Your task to perform on an android device: Open ESPN.com Image 0: 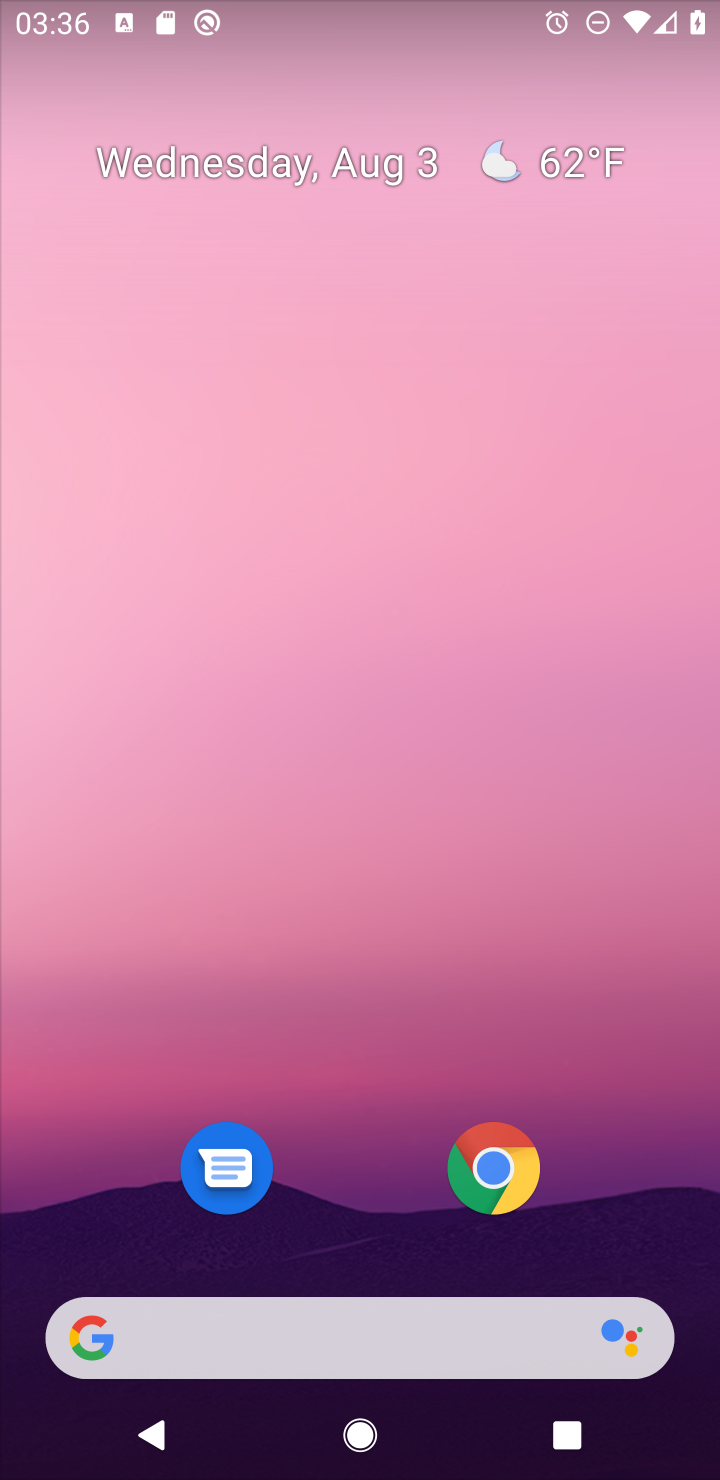
Step 0: click (500, 1170)
Your task to perform on an android device: Open ESPN.com Image 1: 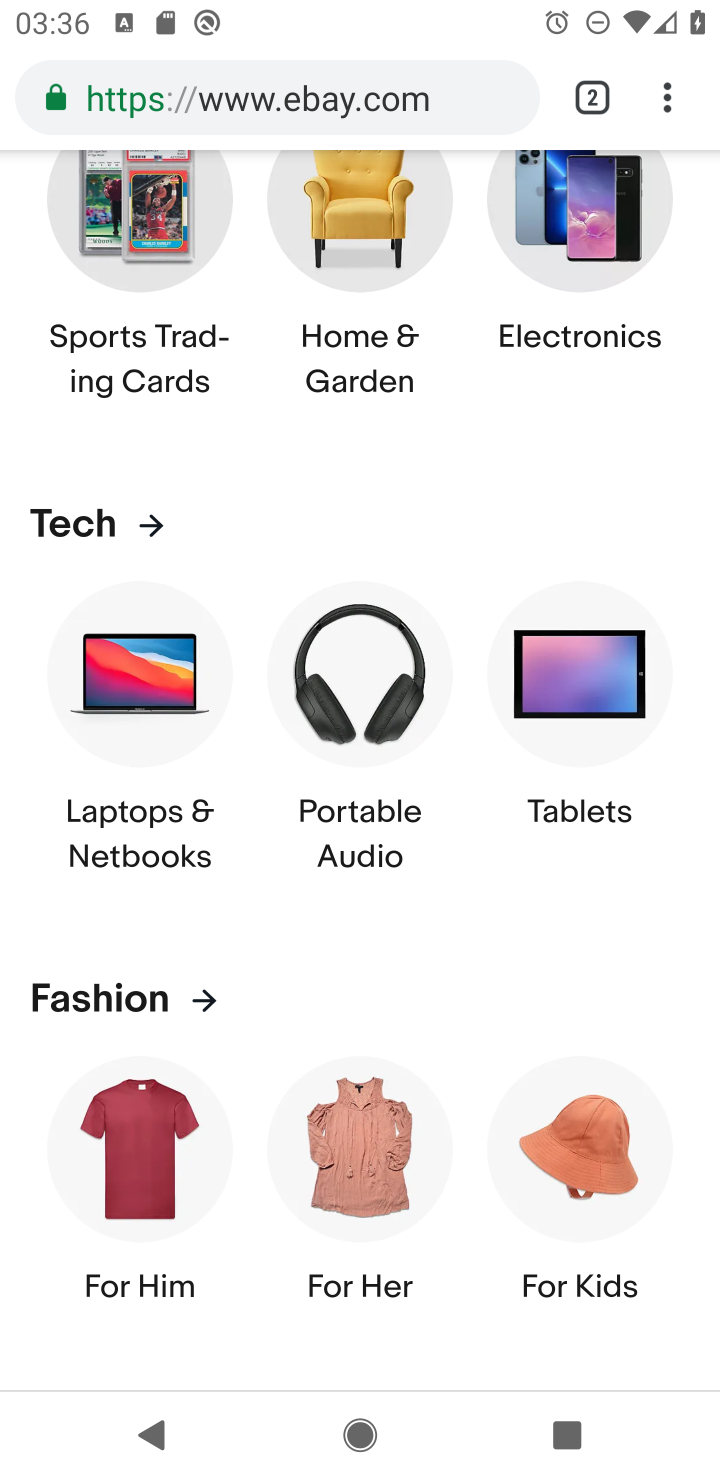
Step 1: click (471, 97)
Your task to perform on an android device: Open ESPN.com Image 2: 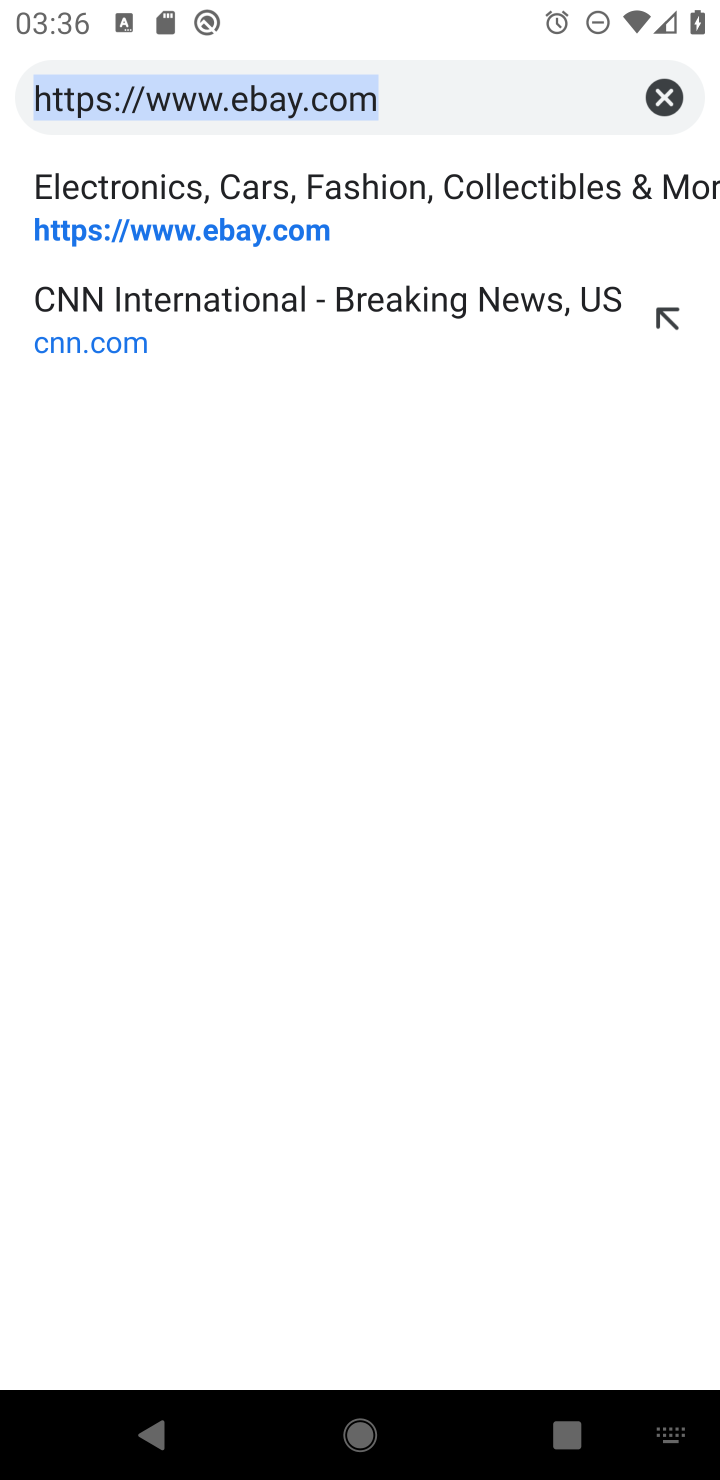
Step 2: click (650, 93)
Your task to perform on an android device: Open ESPN.com Image 3: 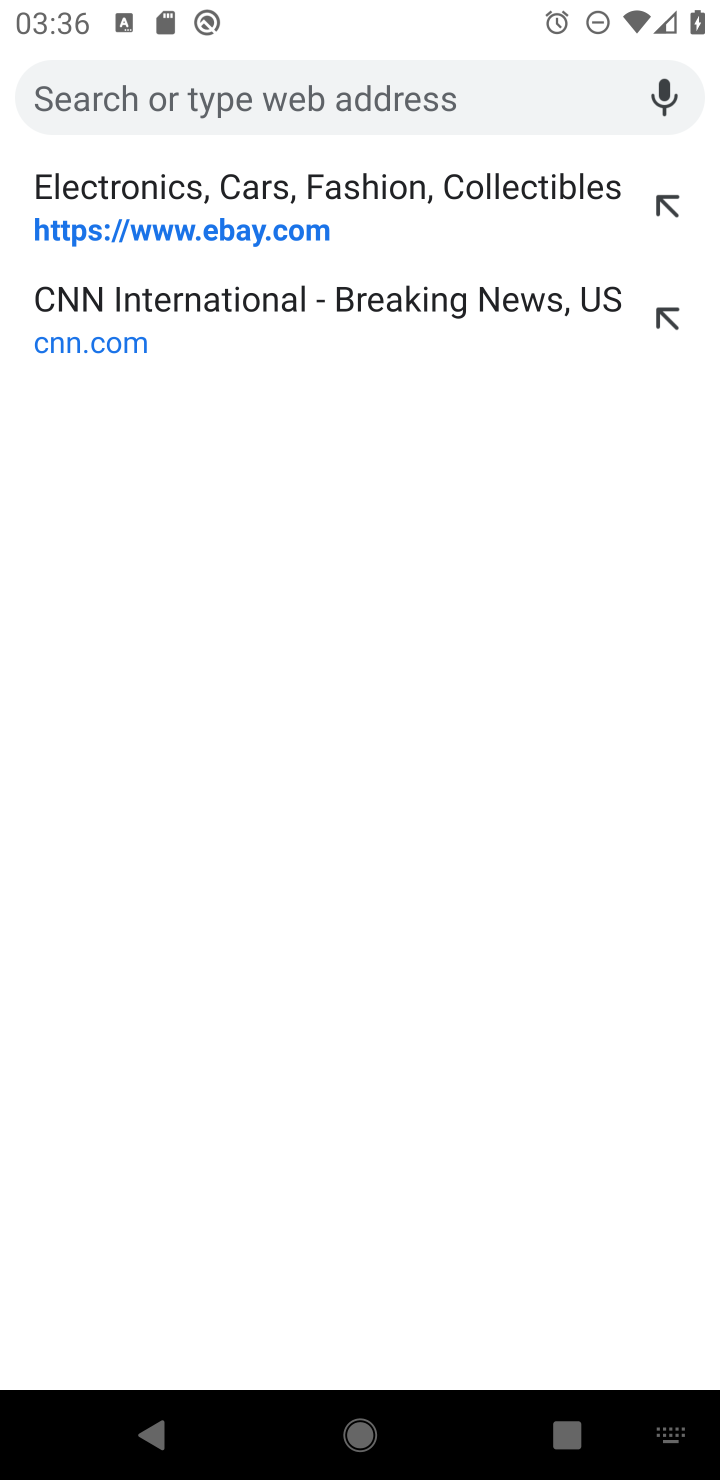
Step 3: type "ESPN.com"
Your task to perform on an android device: Open ESPN.com Image 4: 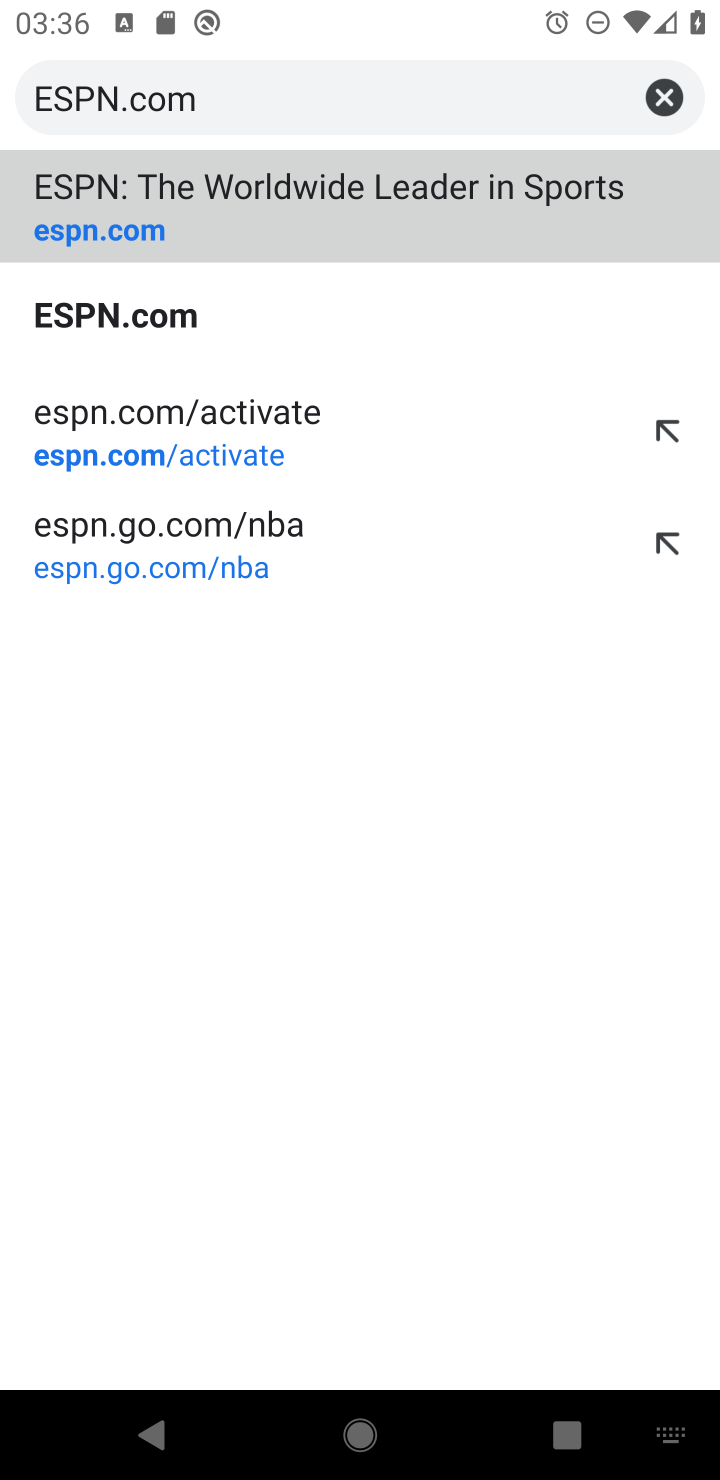
Step 4: click (186, 192)
Your task to perform on an android device: Open ESPN.com Image 5: 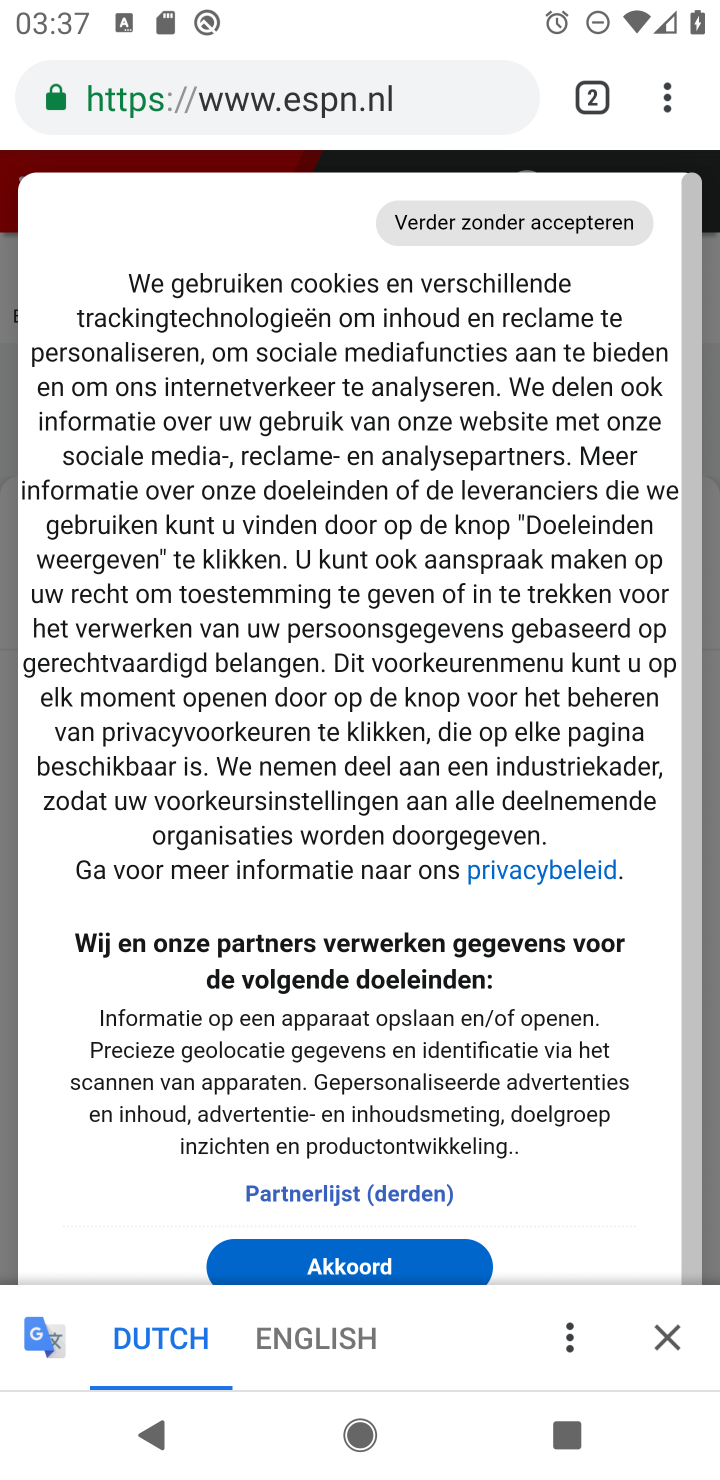
Step 5: click (352, 1255)
Your task to perform on an android device: Open ESPN.com Image 6: 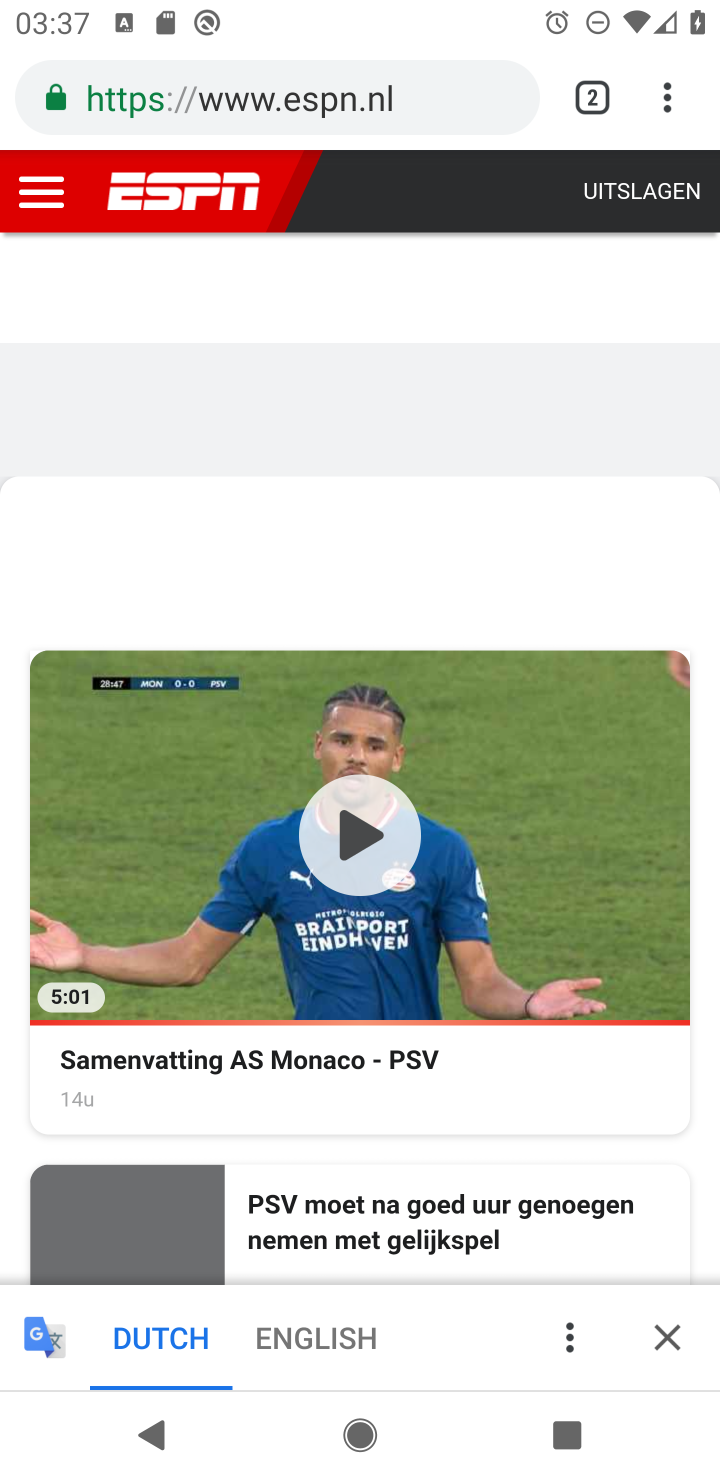
Step 6: task complete